Your task to perform on an android device: see creations saved in the google photos Image 0: 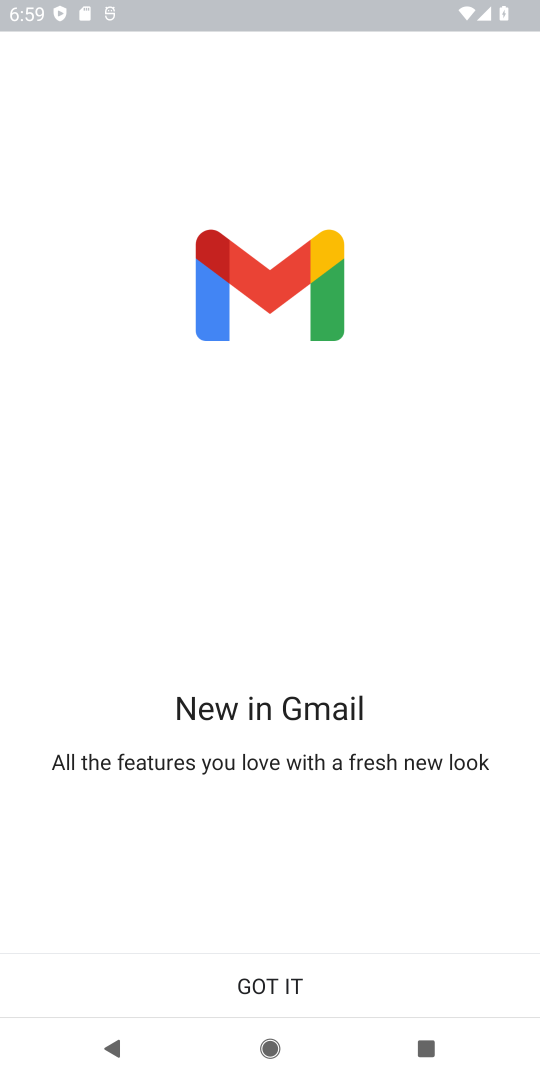
Step 0: drag from (6, 277) to (12, 352)
Your task to perform on an android device: see creations saved in the google photos Image 1: 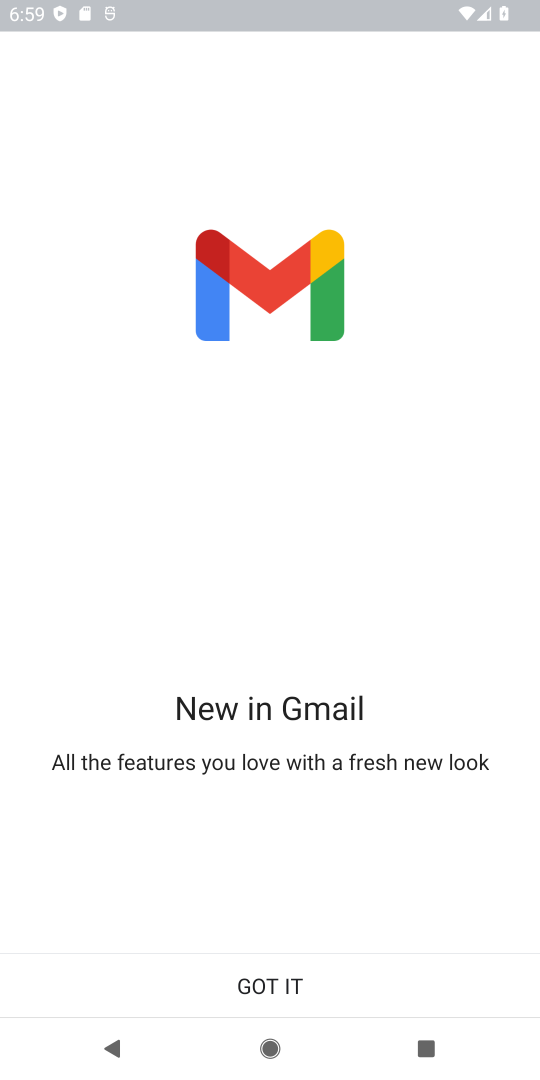
Step 1: press home button
Your task to perform on an android device: see creations saved in the google photos Image 2: 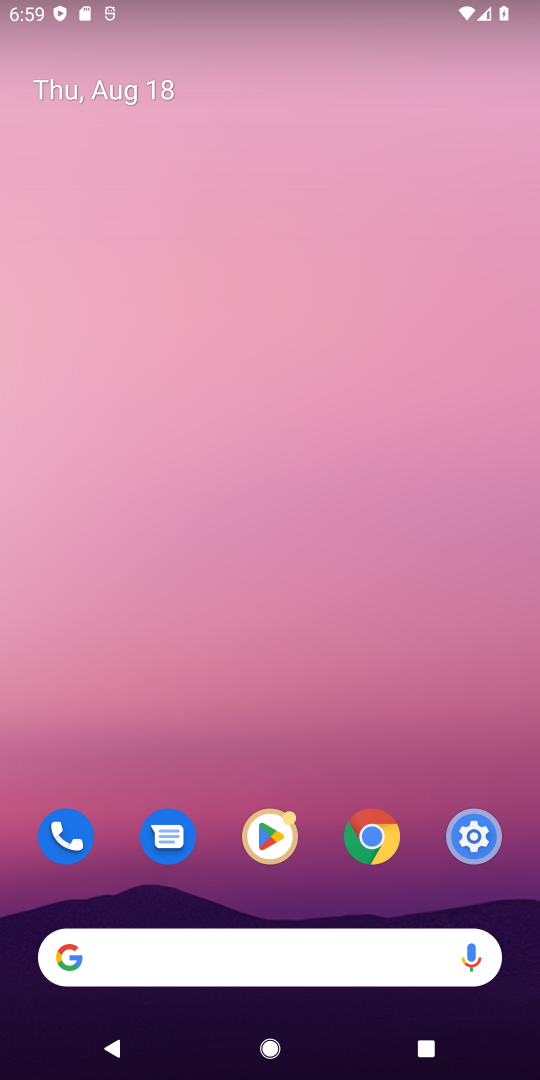
Step 2: drag from (370, 587) to (48, 458)
Your task to perform on an android device: see creations saved in the google photos Image 3: 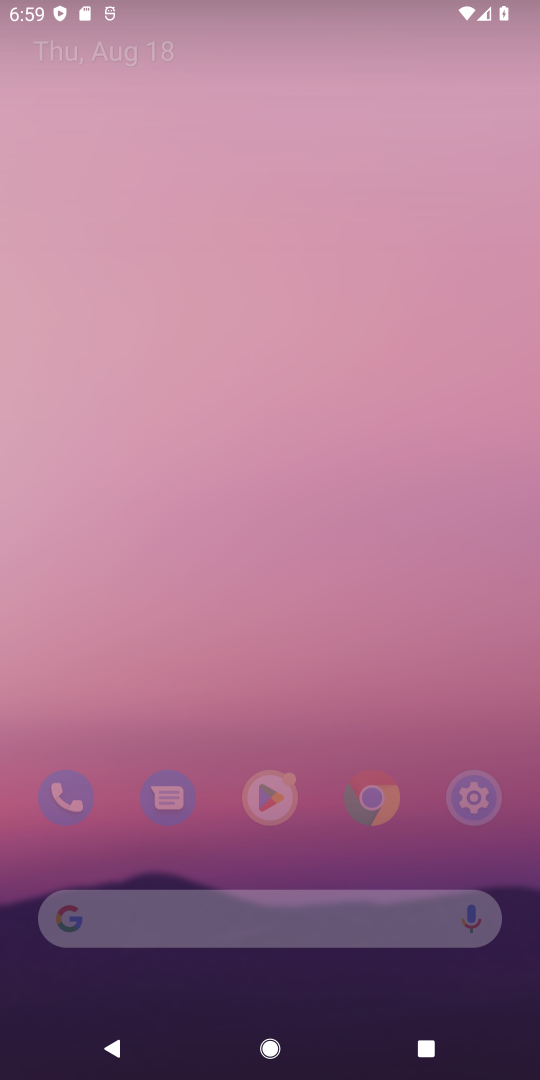
Step 3: click (284, 685)
Your task to perform on an android device: see creations saved in the google photos Image 4: 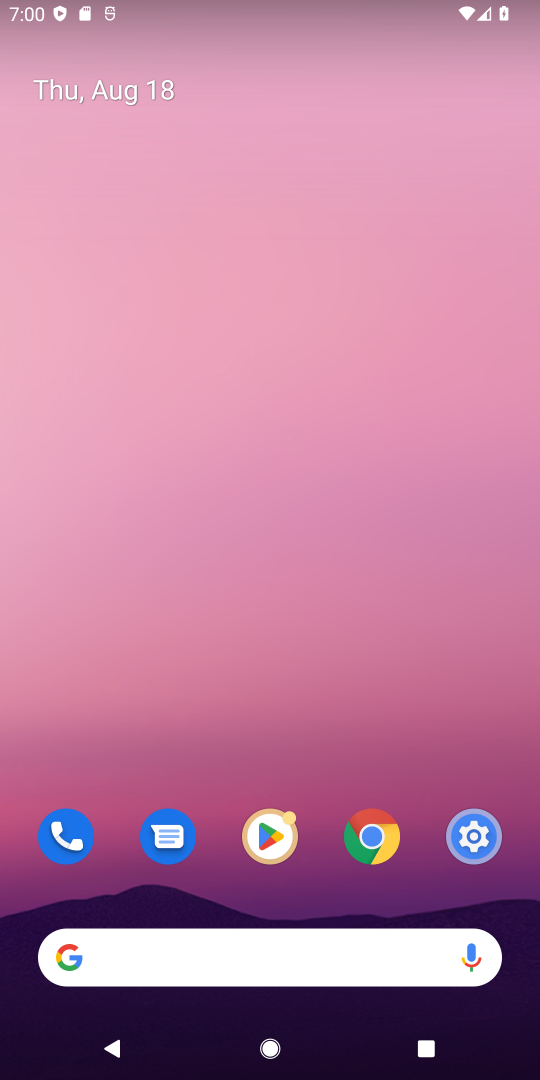
Step 4: drag from (322, 720) to (318, 7)
Your task to perform on an android device: see creations saved in the google photos Image 5: 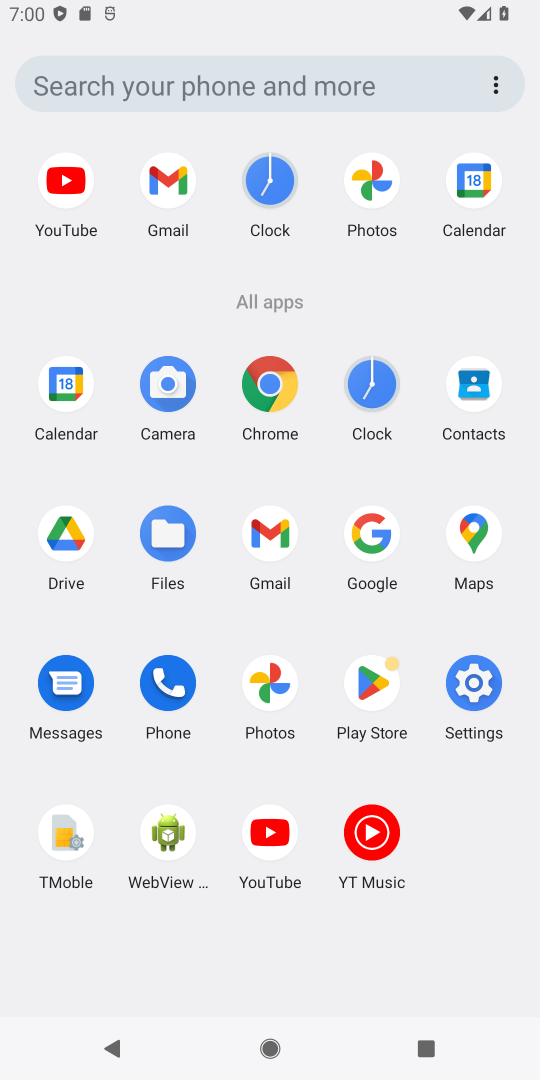
Step 5: click (274, 675)
Your task to perform on an android device: see creations saved in the google photos Image 6: 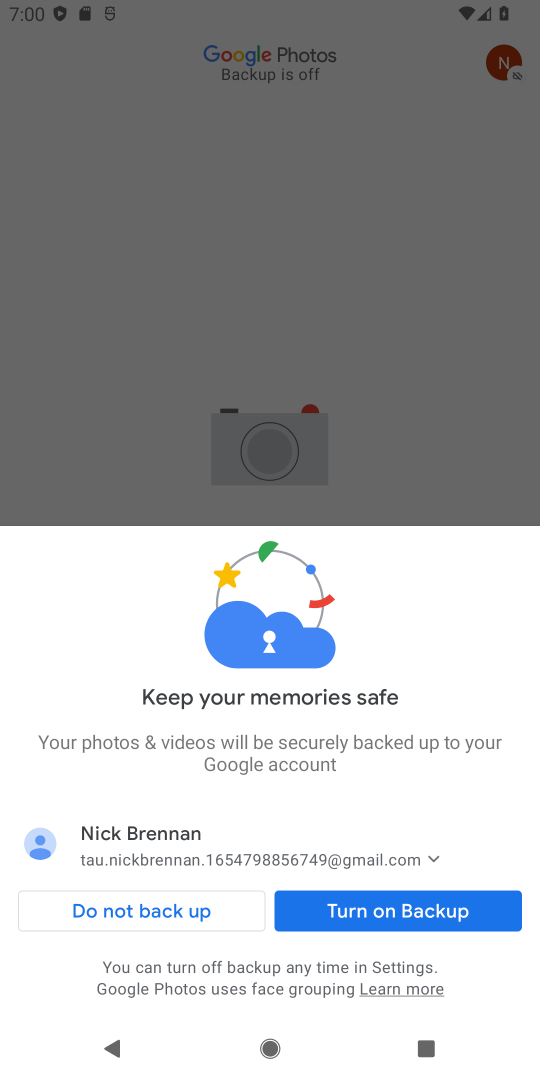
Step 6: click (386, 905)
Your task to perform on an android device: see creations saved in the google photos Image 7: 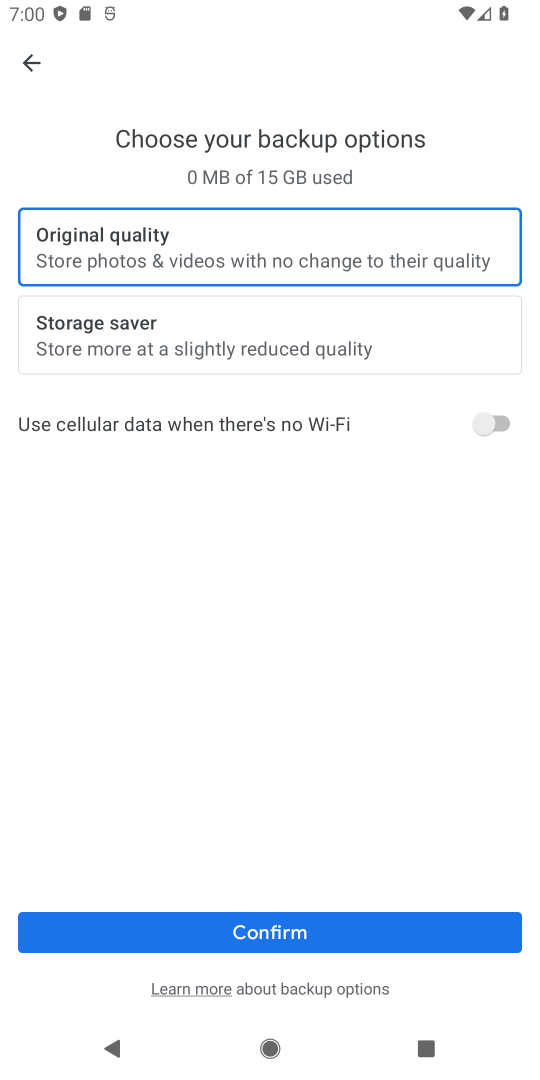
Step 7: click (354, 915)
Your task to perform on an android device: see creations saved in the google photos Image 8: 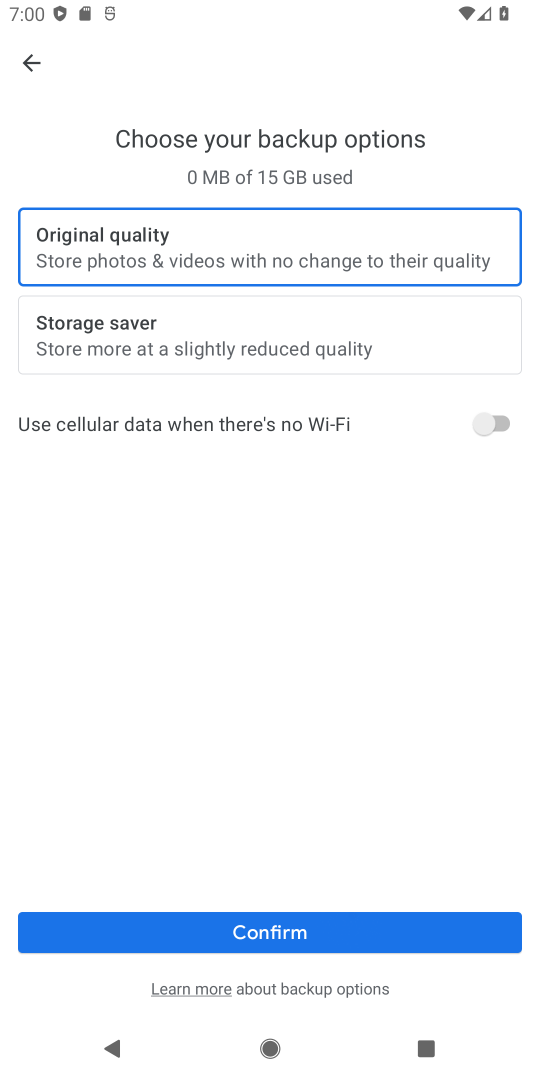
Step 8: click (356, 924)
Your task to perform on an android device: see creations saved in the google photos Image 9: 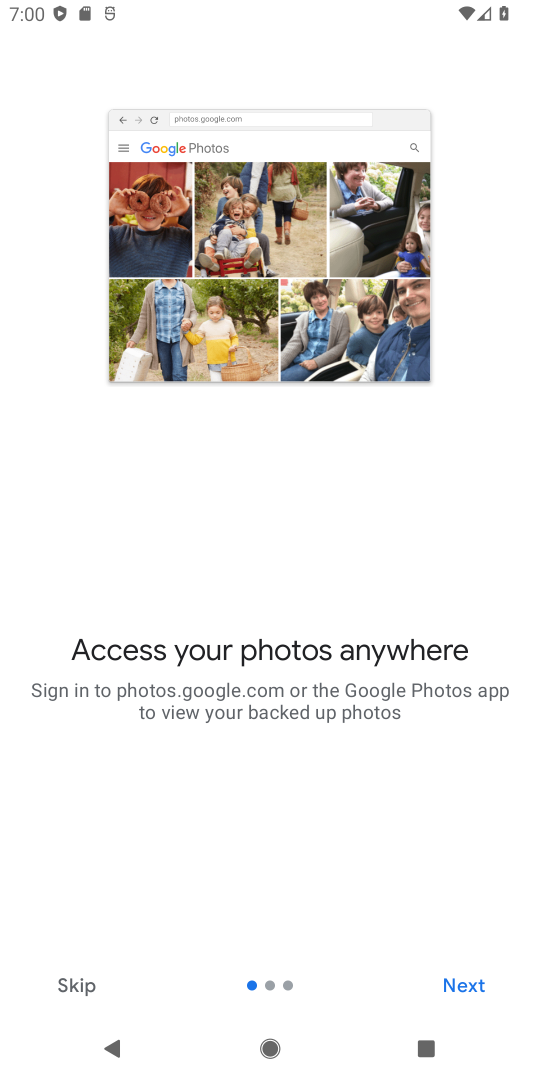
Step 9: click (474, 979)
Your task to perform on an android device: see creations saved in the google photos Image 10: 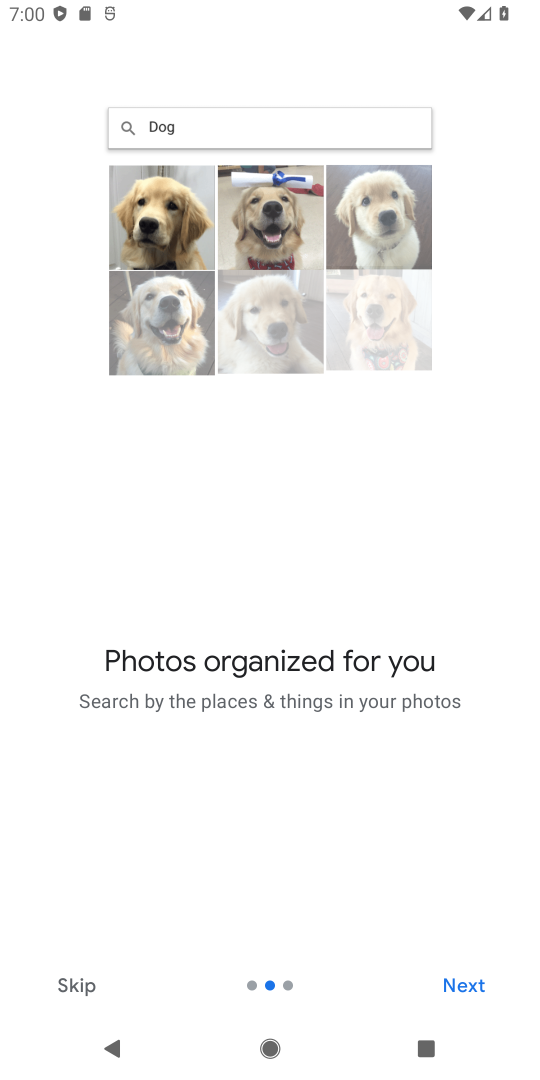
Step 10: click (477, 979)
Your task to perform on an android device: see creations saved in the google photos Image 11: 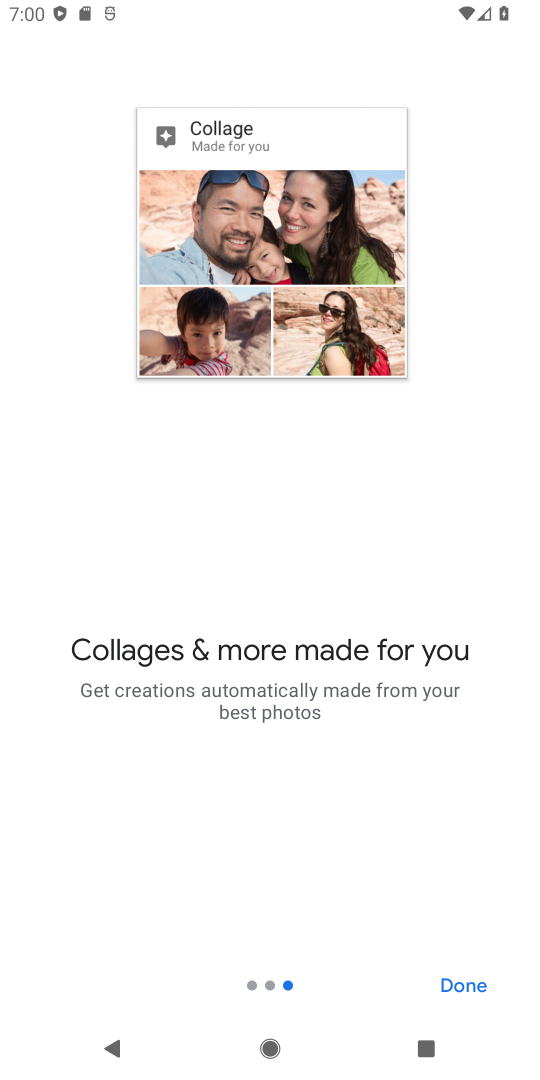
Step 11: click (477, 982)
Your task to perform on an android device: see creations saved in the google photos Image 12: 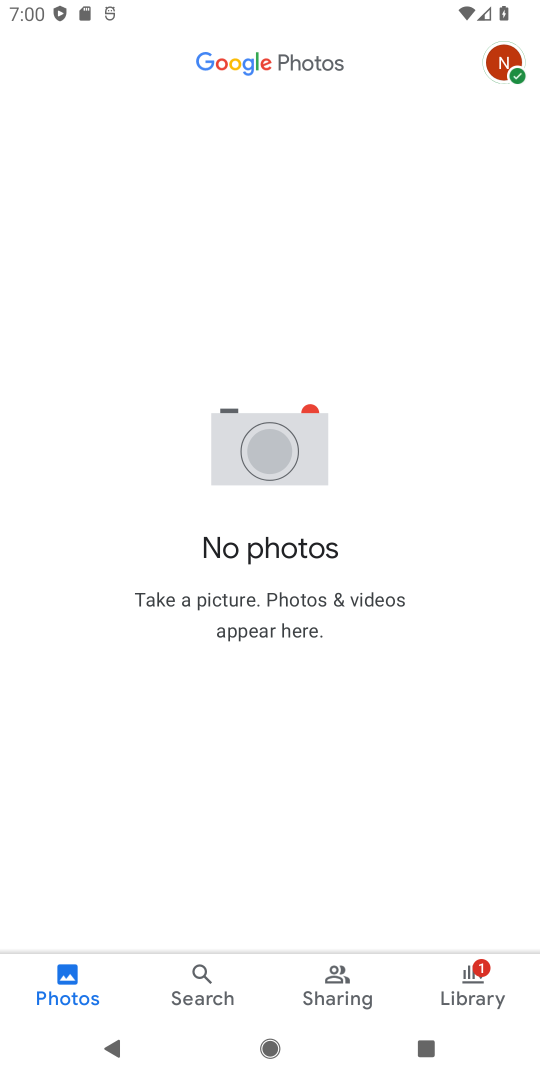
Step 12: click (477, 977)
Your task to perform on an android device: see creations saved in the google photos Image 13: 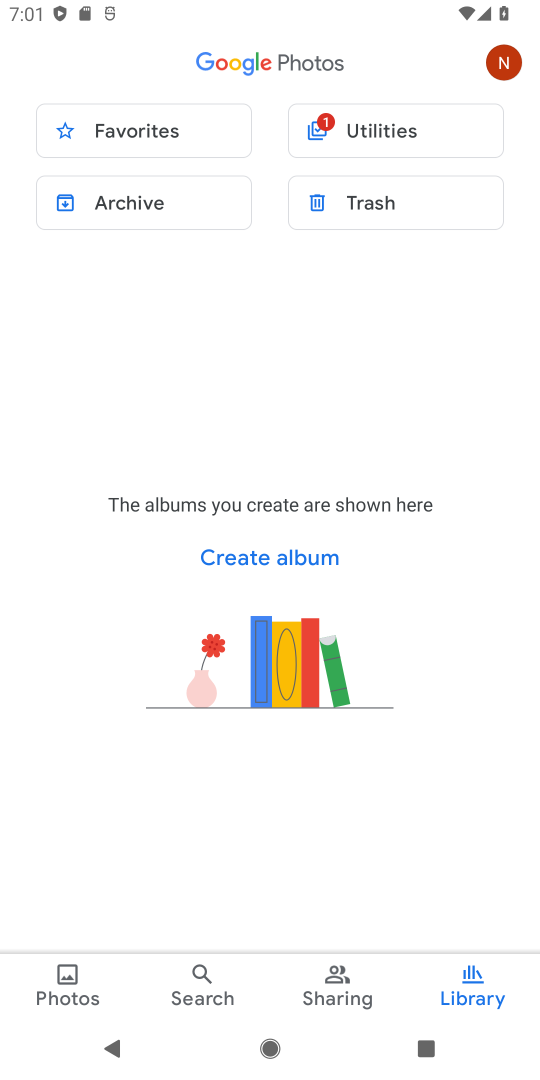
Step 13: task complete